Your task to perform on an android device: Check the weather Image 0: 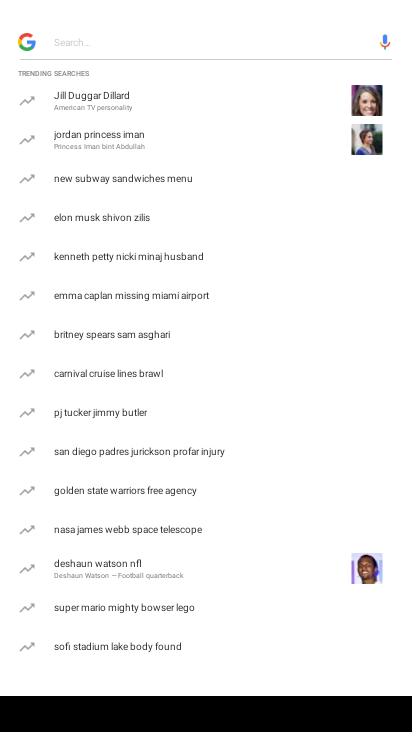
Step 0: press home button
Your task to perform on an android device: Check the weather Image 1: 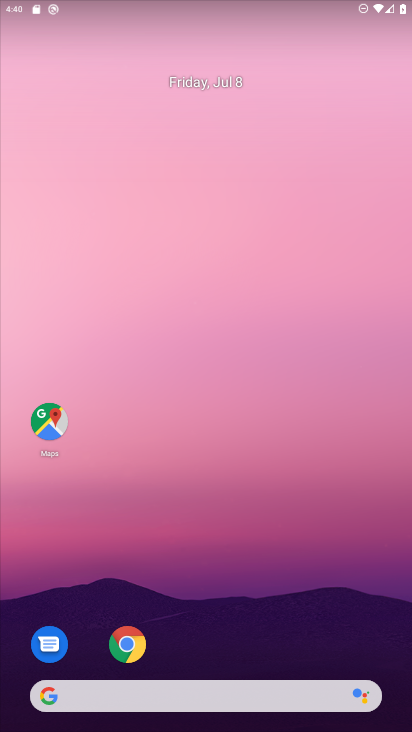
Step 1: drag from (329, 545) to (217, 0)
Your task to perform on an android device: Check the weather Image 2: 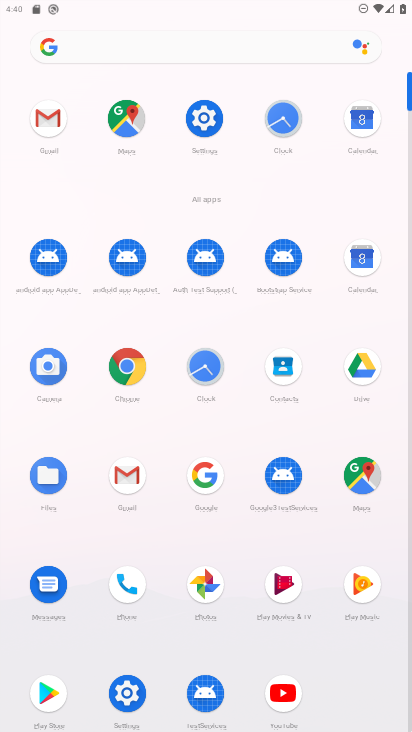
Step 2: click (128, 370)
Your task to perform on an android device: Check the weather Image 3: 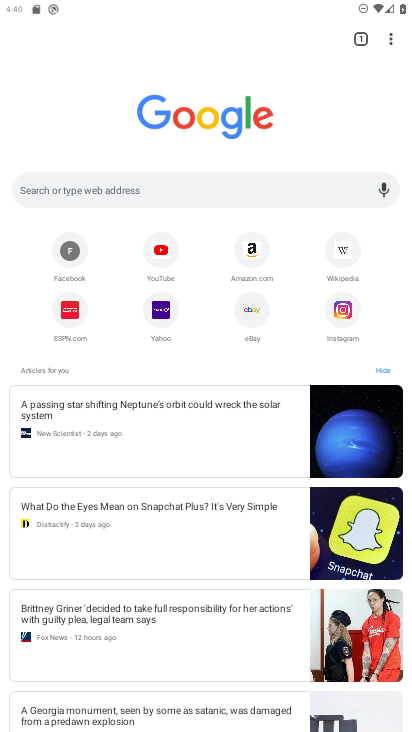
Step 3: click (192, 190)
Your task to perform on an android device: Check the weather Image 4: 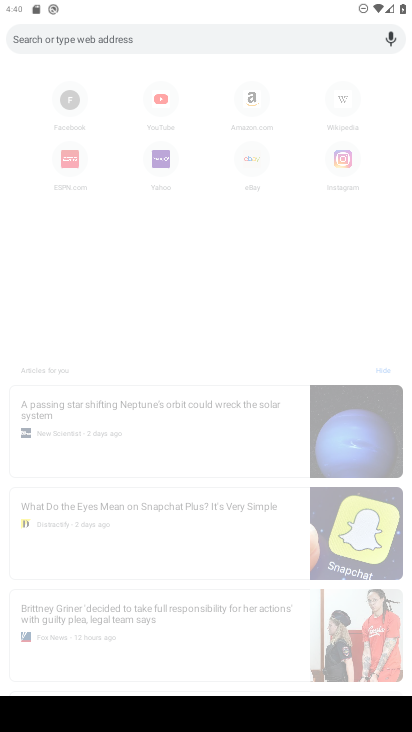
Step 4: type "weater"
Your task to perform on an android device: Check the weather Image 5: 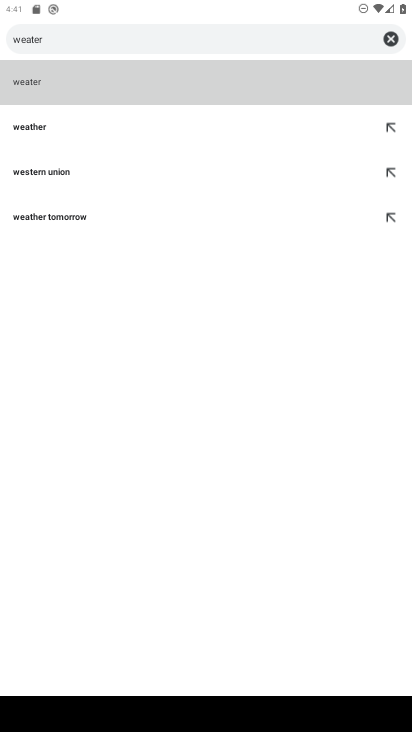
Step 5: click (24, 122)
Your task to perform on an android device: Check the weather Image 6: 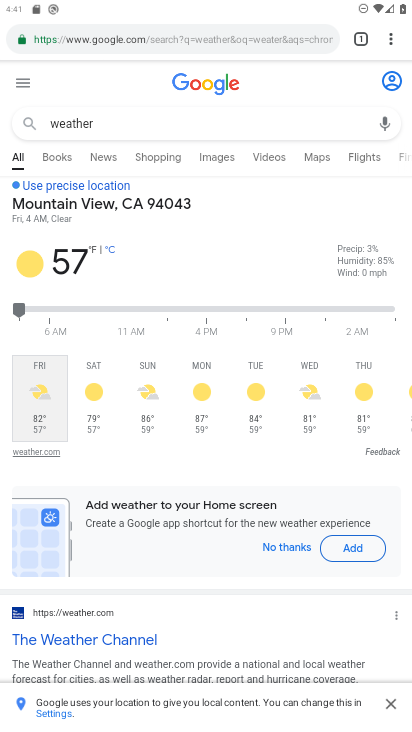
Step 6: task complete